Your task to perform on an android device: turn pop-ups off in chrome Image 0: 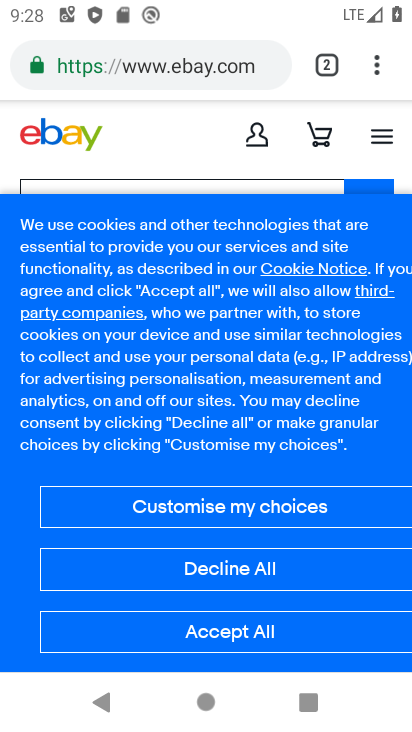
Step 0: press home button
Your task to perform on an android device: turn pop-ups off in chrome Image 1: 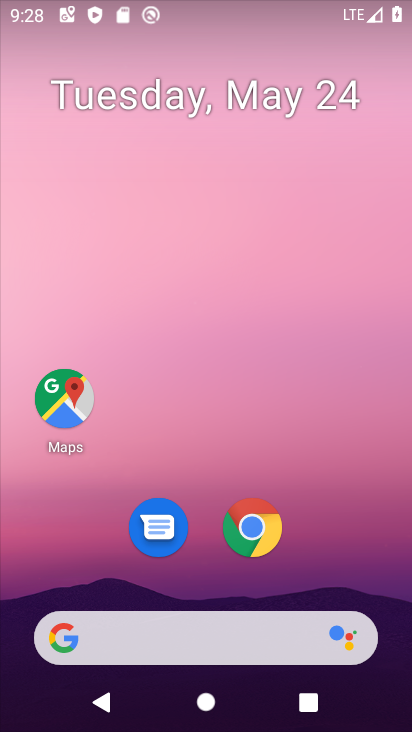
Step 1: click (258, 537)
Your task to perform on an android device: turn pop-ups off in chrome Image 2: 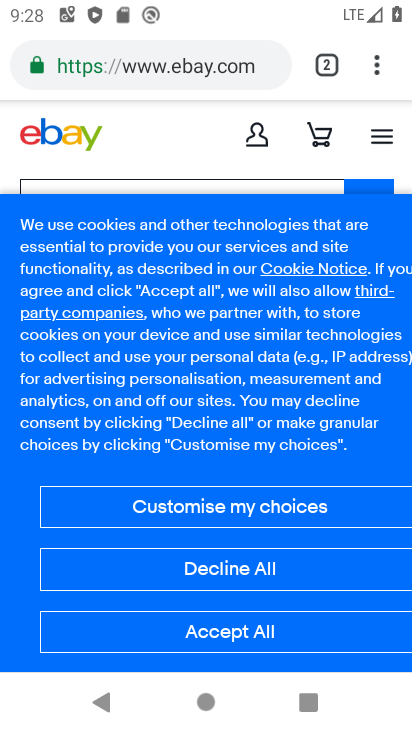
Step 2: click (375, 68)
Your task to perform on an android device: turn pop-ups off in chrome Image 3: 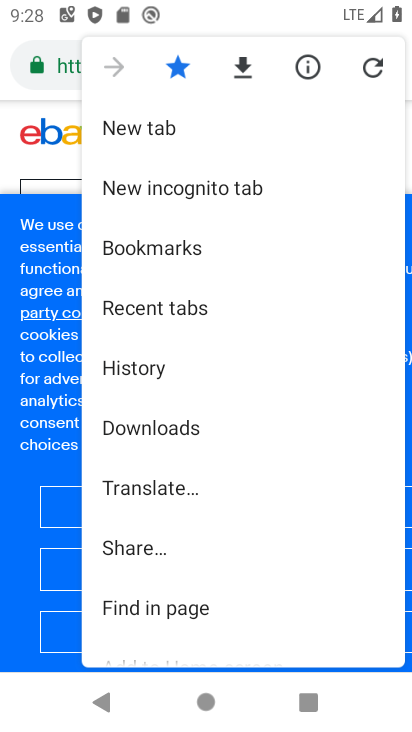
Step 3: drag from (176, 585) to (196, 301)
Your task to perform on an android device: turn pop-ups off in chrome Image 4: 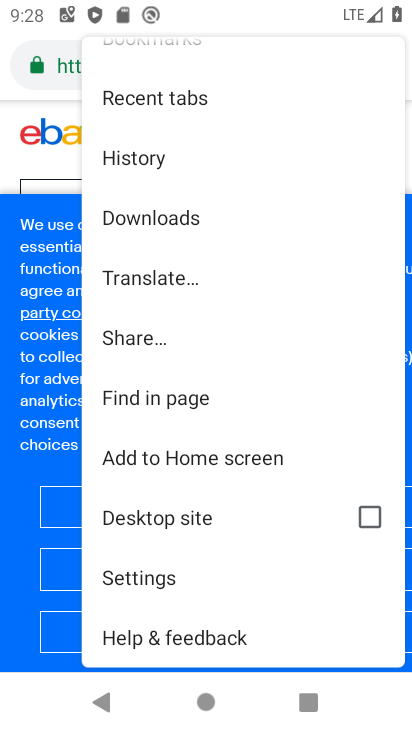
Step 4: click (181, 577)
Your task to perform on an android device: turn pop-ups off in chrome Image 5: 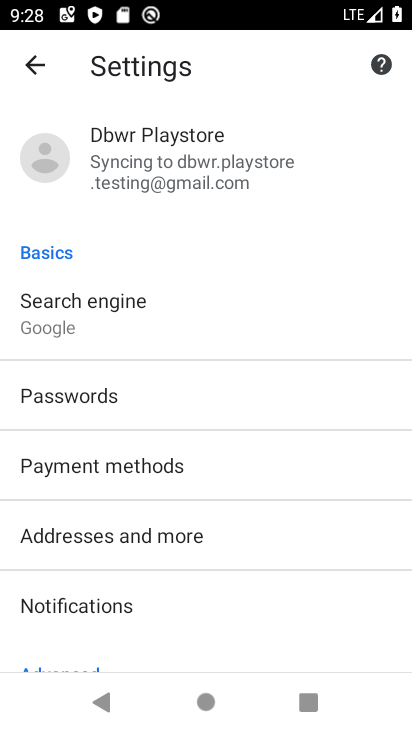
Step 5: drag from (181, 543) to (174, 323)
Your task to perform on an android device: turn pop-ups off in chrome Image 6: 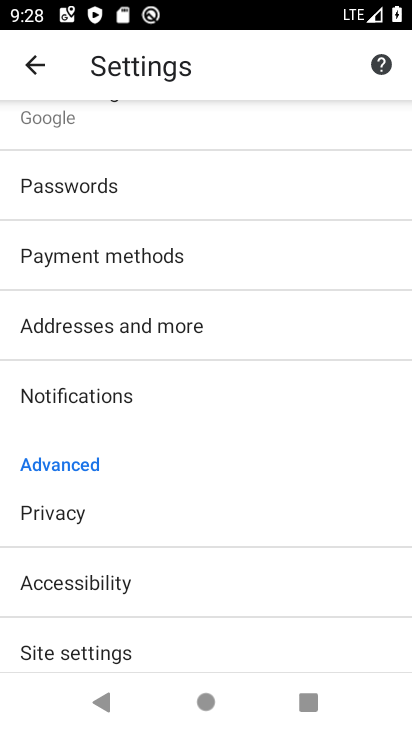
Step 6: click (136, 664)
Your task to perform on an android device: turn pop-ups off in chrome Image 7: 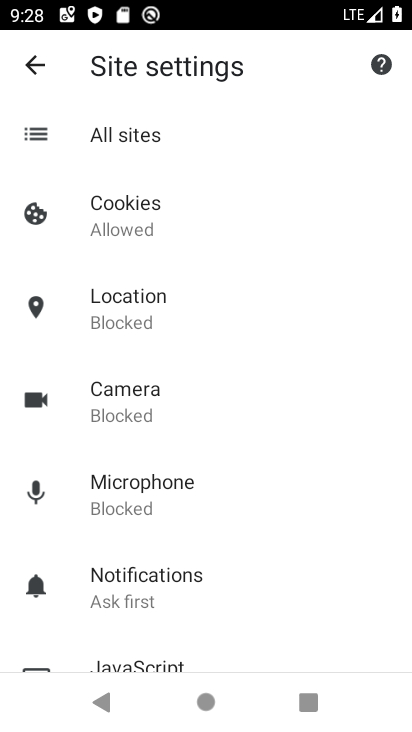
Step 7: drag from (184, 573) to (182, 198)
Your task to perform on an android device: turn pop-ups off in chrome Image 8: 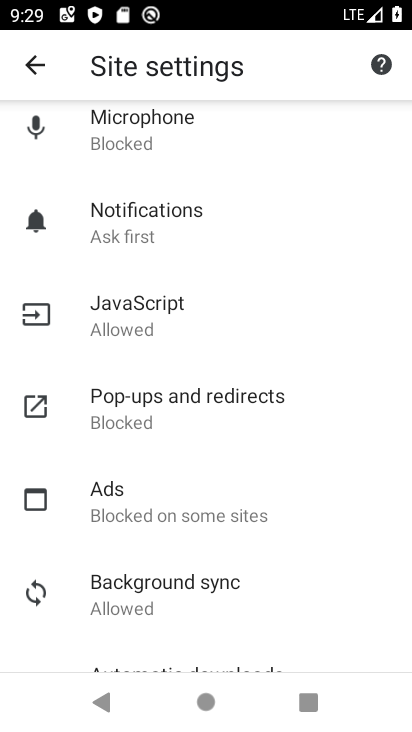
Step 8: click (191, 423)
Your task to perform on an android device: turn pop-ups off in chrome Image 9: 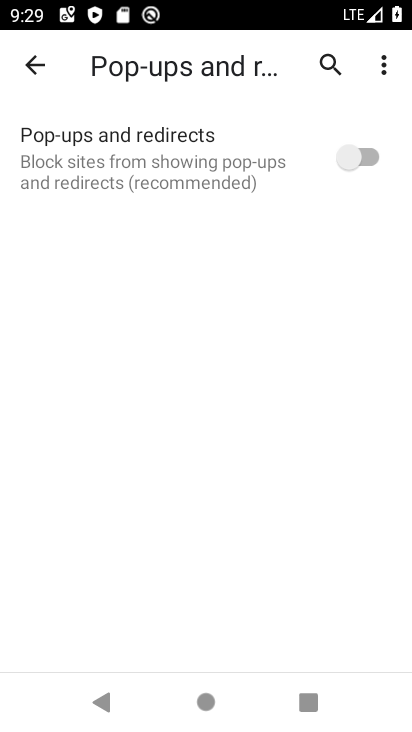
Step 9: task complete